Your task to perform on an android device: Go to network settings Image 0: 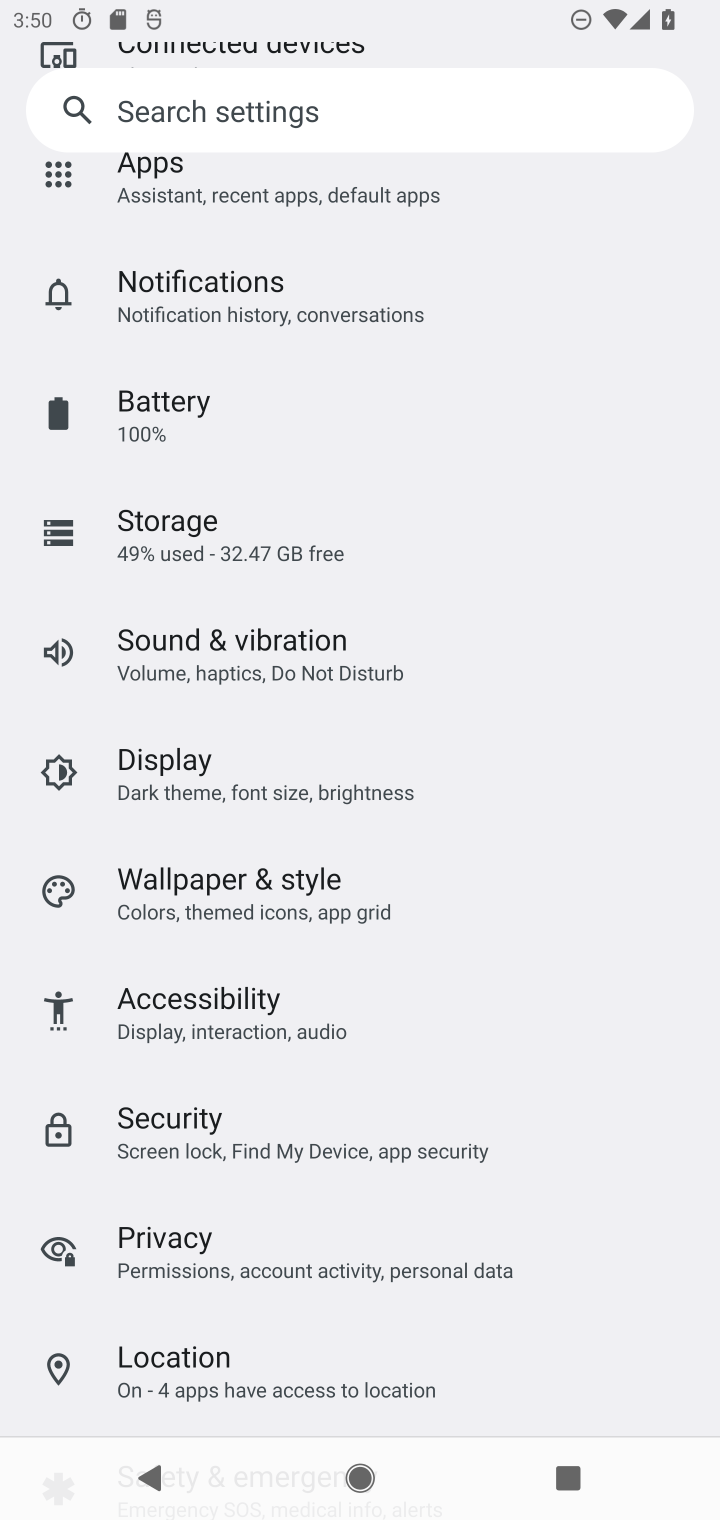
Step 0: drag from (419, 322) to (403, 1479)
Your task to perform on an android device: Go to network settings Image 1: 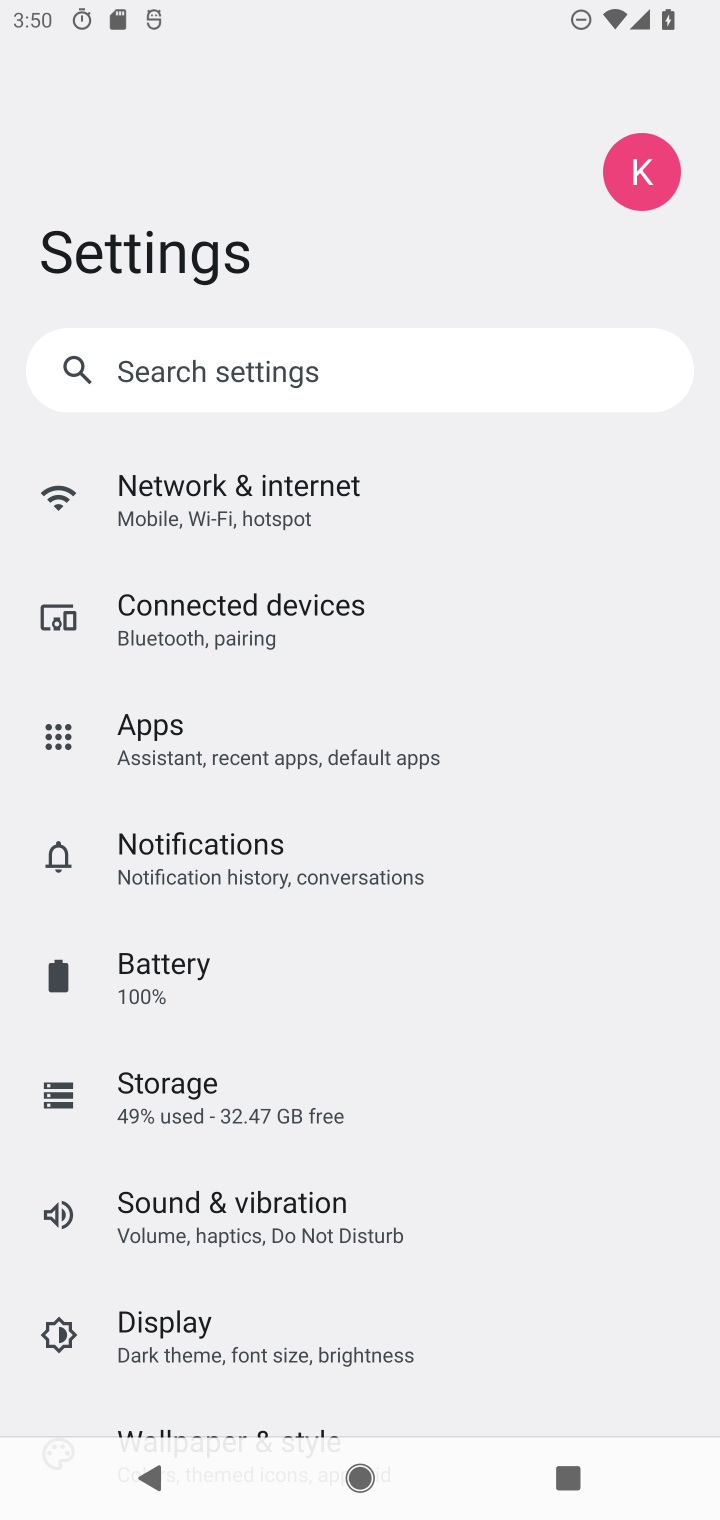
Step 1: click (257, 508)
Your task to perform on an android device: Go to network settings Image 2: 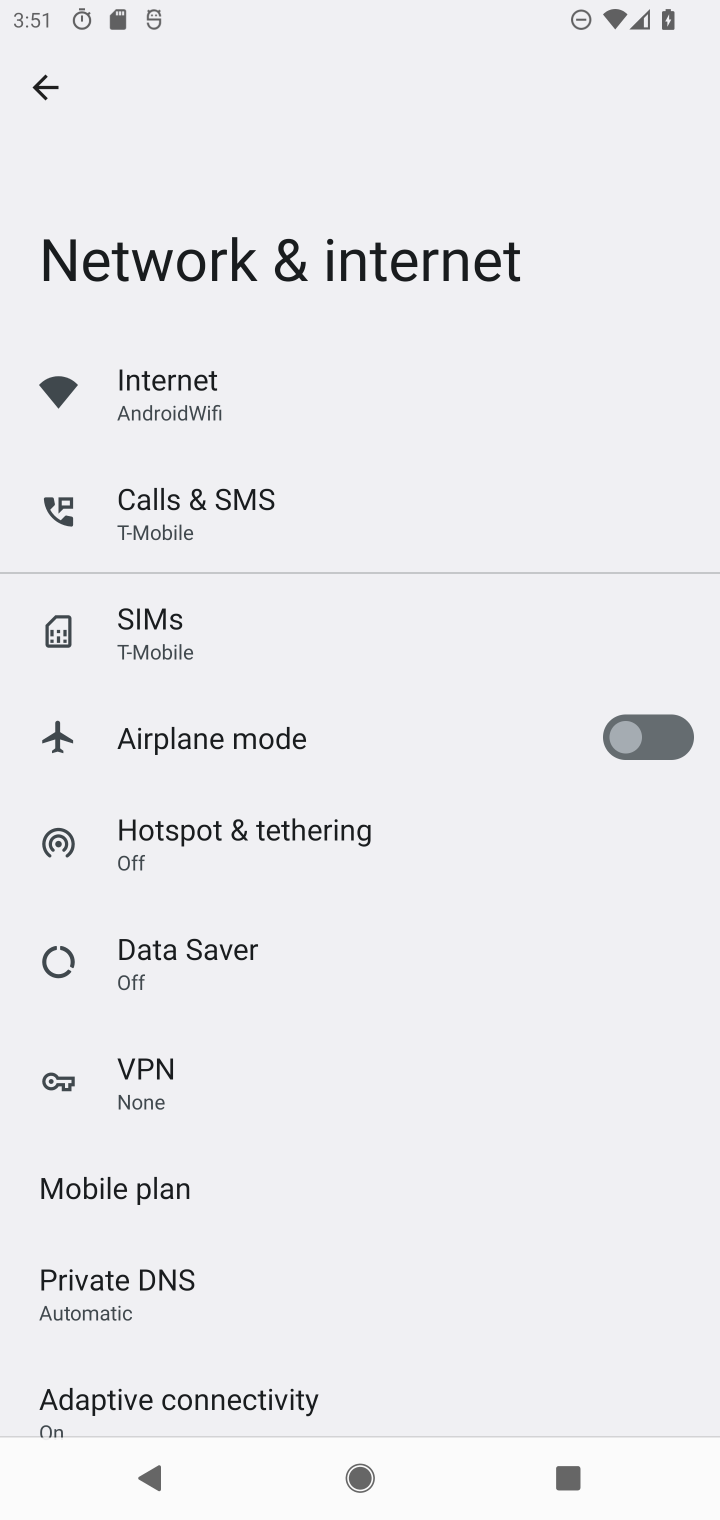
Step 2: task complete